Your task to perform on an android device: What's the weather today? Image 0: 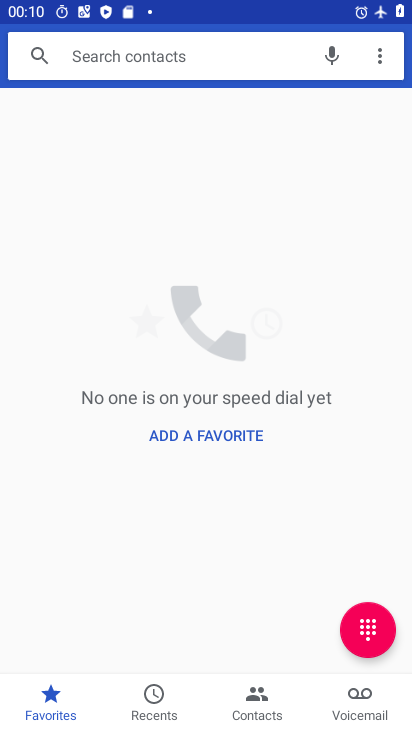
Step 0: press home button
Your task to perform on an android device: What's the weather today? Image 1: 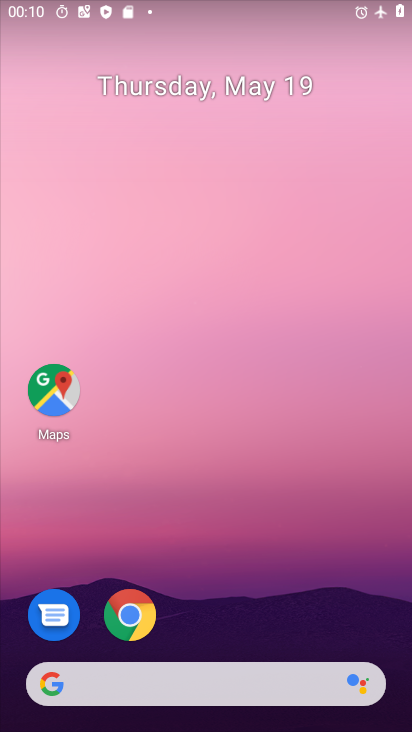
Step 1: click (93, 690)
Your task to perform on an android device: What's the weather today? Image 2: 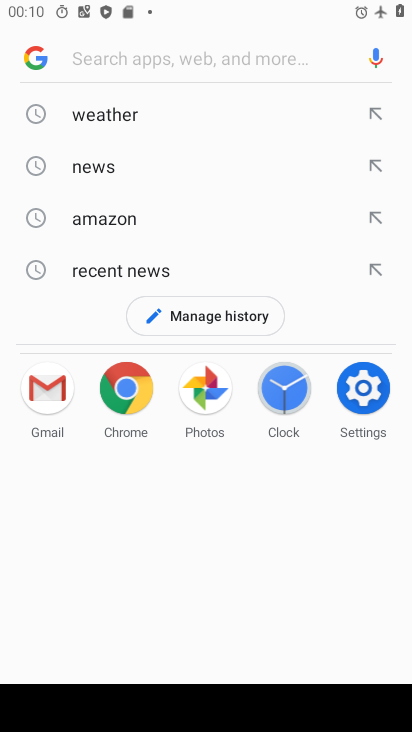
Step 2: click (112, 113)
Your task to perform on an android device: What's the weather today? Image 3: 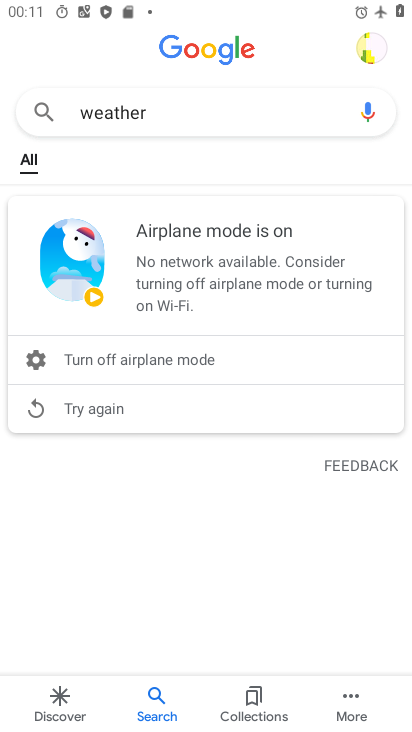
Step 3: task complete